Your task to perform on an android device: What's on my calendar tomorrow? Image 0: 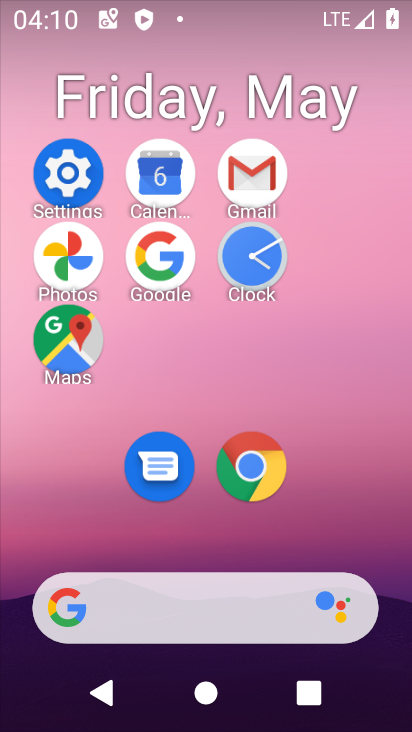
Step 0: click (161, 196)
Your task to perform on an android device: What's on my calendar tomorrow? Image 1: 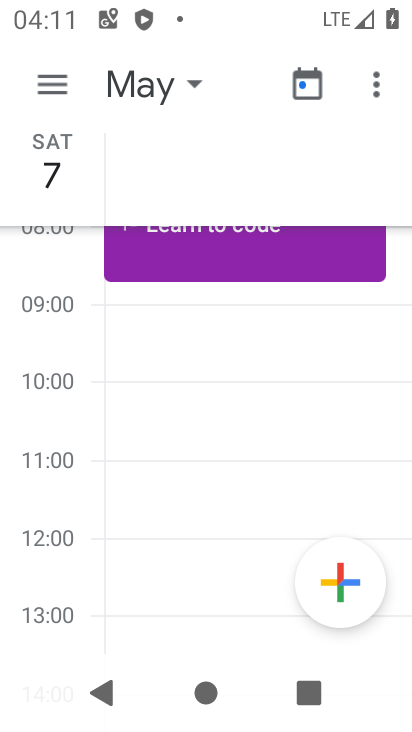
Step 1: click (52, 87)
Your task to perform on an android device: What's on my calendar tomorrow? Image 2: 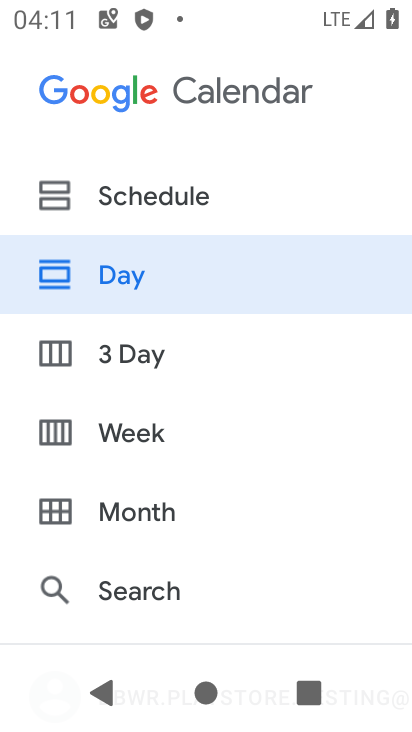
Step 2: click (227, 285)
Your task to perform on an android device: What's on my calendar tomorrow? Image 3: 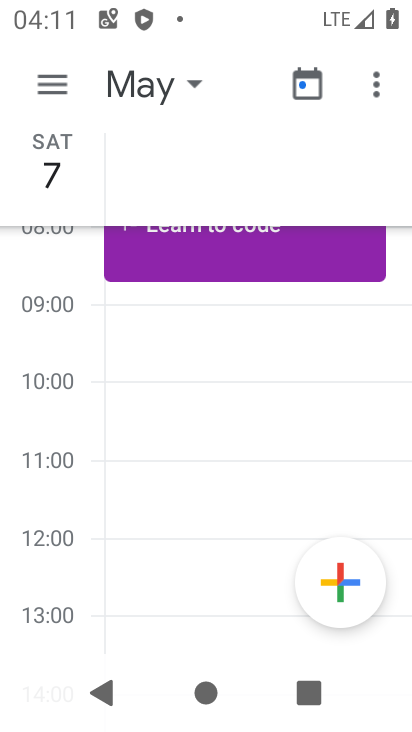
Step 3: task complete